Your task to perform on an android device: Go to Yahoo.com Image 0: 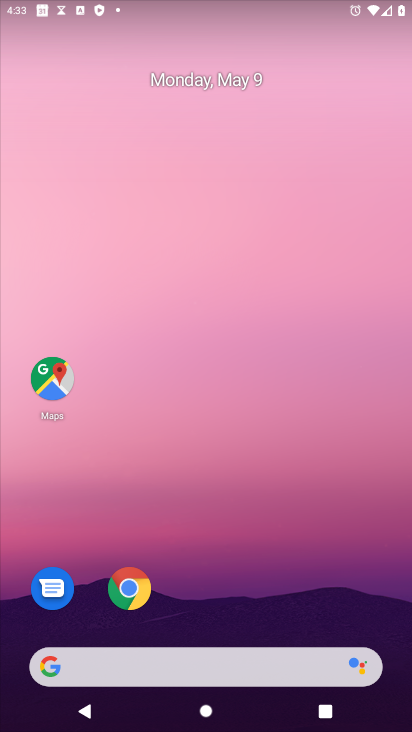
Step 0: click (132, 598)
Your task to perform on an android device: Go to Yahoo.com Image 1: 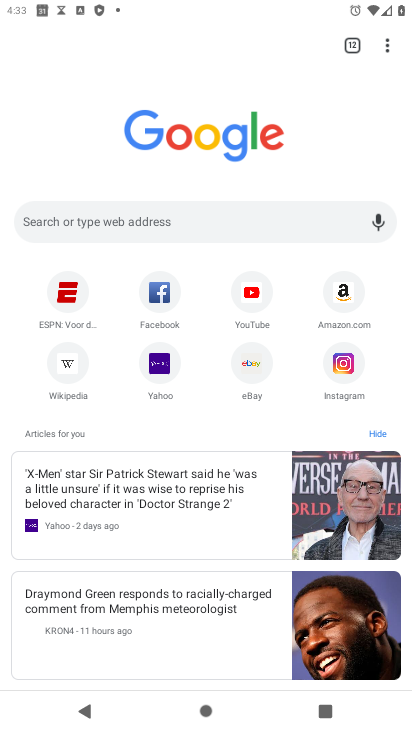
Step 1: click (165, 368)
Your task to perform on an android device: Go to Yahoo.com Image 2: 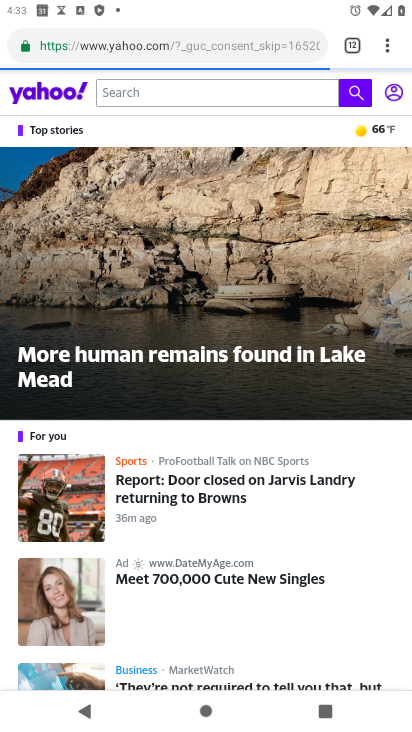
Step 2: task complete